Your task to perform on an android device: Clear the cart on bestbuy.com. Search for apple airpods pro on bestbuy.com, select the first entry, add it to the cart, then select checkout. Image 0: 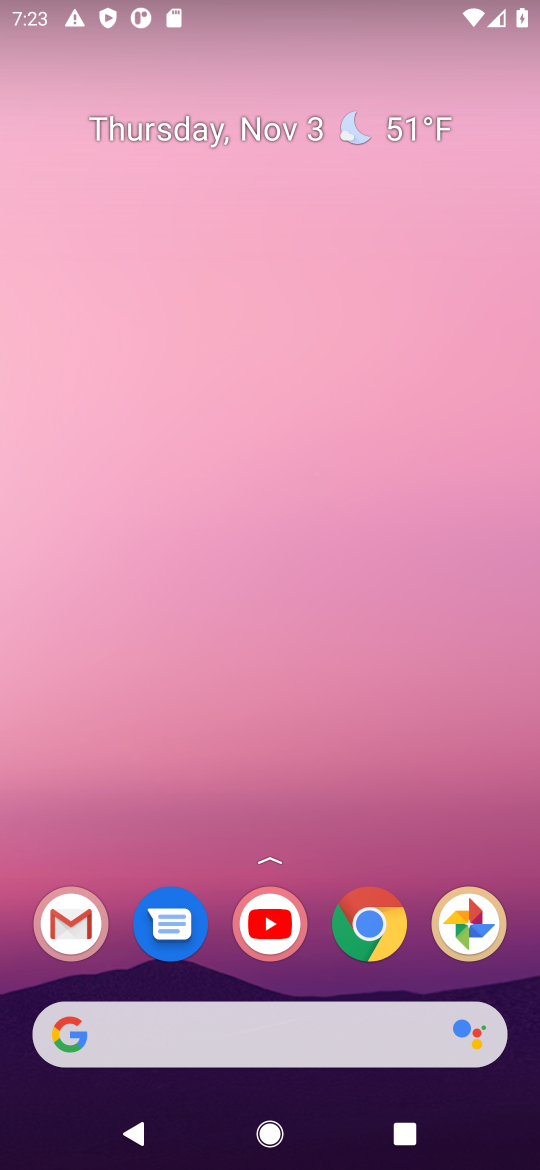
Step 0: drag from (289, 1011) to (293, 273)
Your task to perform on an android device: Clear the cart on bestbuy.com. Search for apple airpods pro on bestbuy.com, select the first entry, add it to the cart, then select checkout. Image 1: 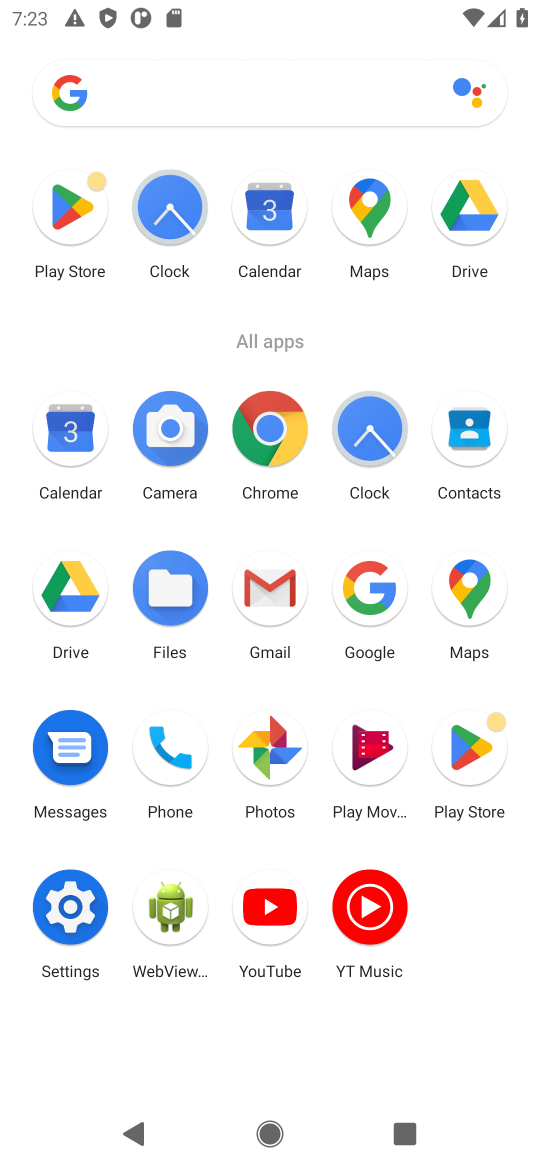
Step 1: click (388, 583)
Your task to perform on an android device: Clear the cart on bestbuy.com. Search for apple airpods pro on bestbuy.com, select the first entry, add it to the cart, then select checkout. Image 2: 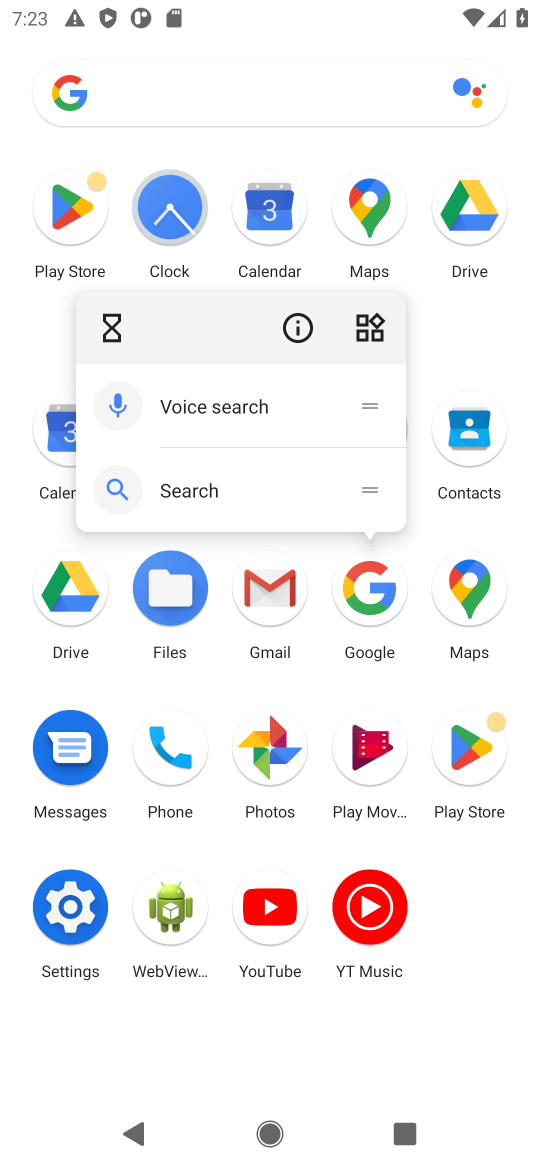
Step 2: click (367, 586)
Your task to perform on an android device: Clear the cart on bestbuy.com. Search for apple airpods pro on bestbuy.com, select the first entry, add it to the cart, then select checkout. Image 3: 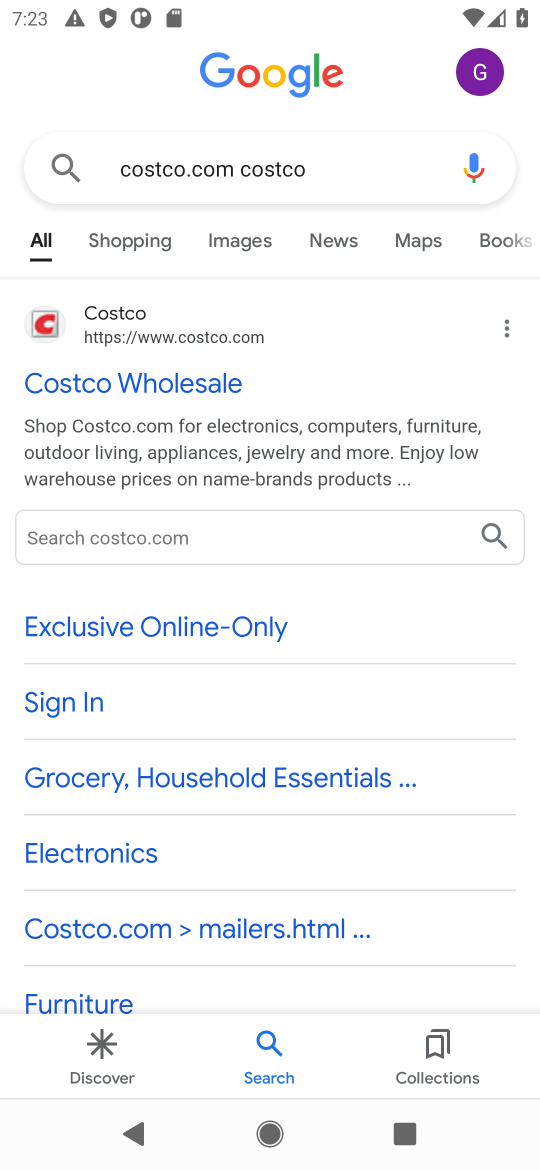
Step 3: click (282, 154)
Your task to perform on an android device: Clear the cart on bestbuy.com. Search for apple airpods pro on bestbuy.com, select the first entry, add it to the cart, then select checkout. Image 4: 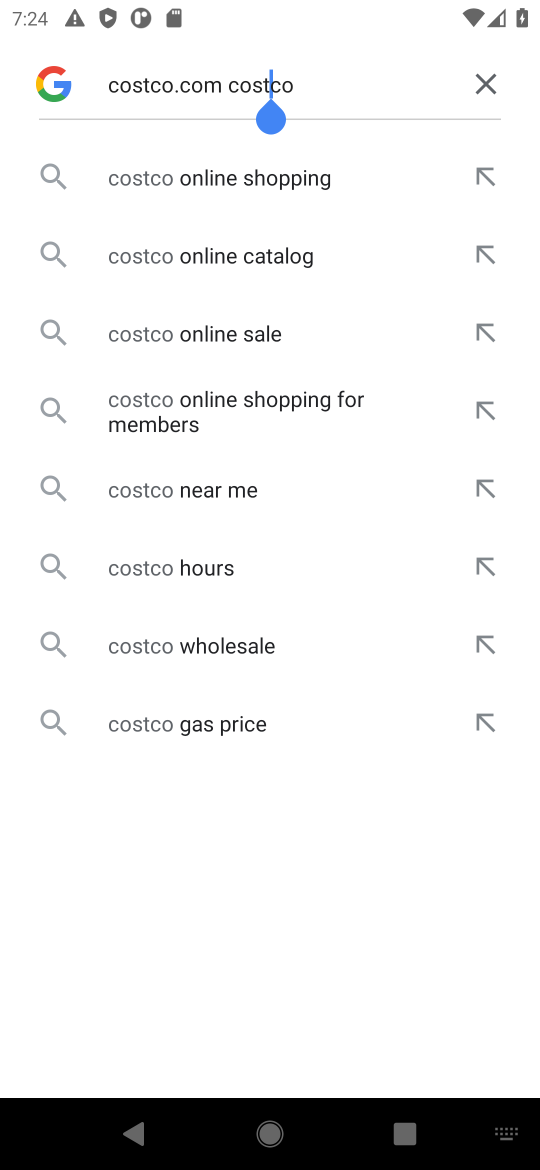
Step 4: click (499, 75)
Your task to perform on an android device: Clear the cart on bestbuy.com. Search for apple airpods pro on bestbuy.com, select the first entry, add it to the cart, then select checkout. Image 5: 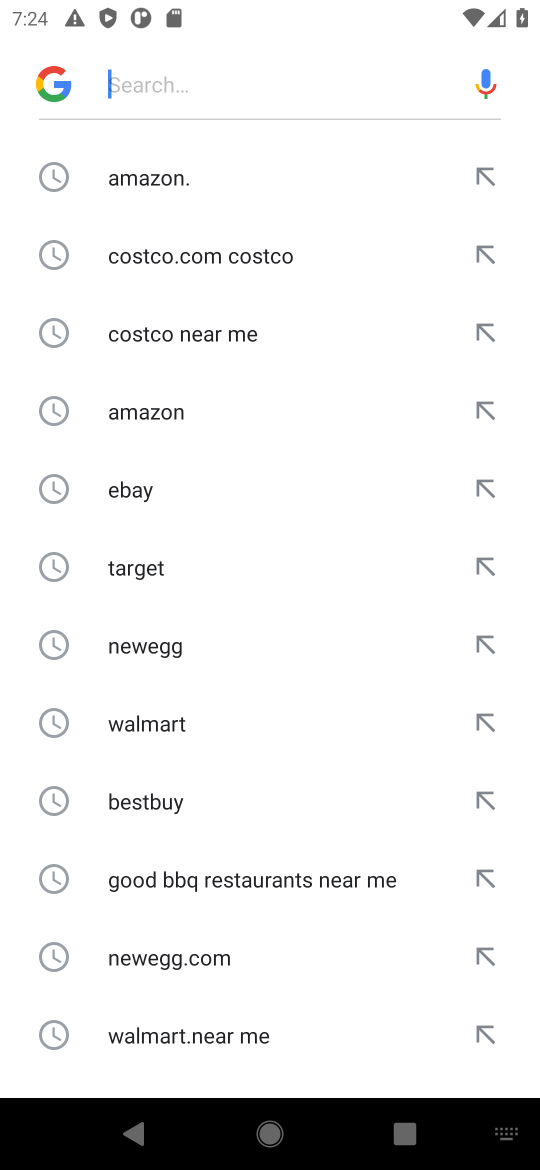
Step 5: click (240, 95)
Your task to perform on an android device: Clear the cart on bestbuy.com. Search for apple airpods pro on bestbuy.com, select the first entry, add it to the cart, then select checkout. Image 6: 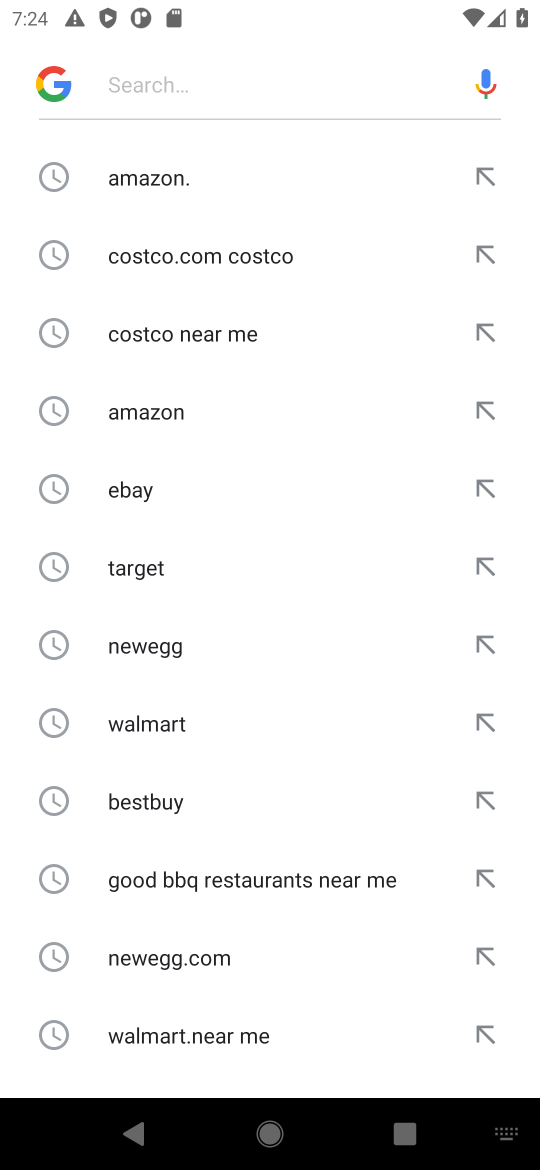
Step 6: click (174, 84)
Your task to perform on an android device: Clear the cart on bestbuy.com. Search for apple airpods pro on bestbuy.com, select the first entry, add it to the cart, then select checkout. Image 7: 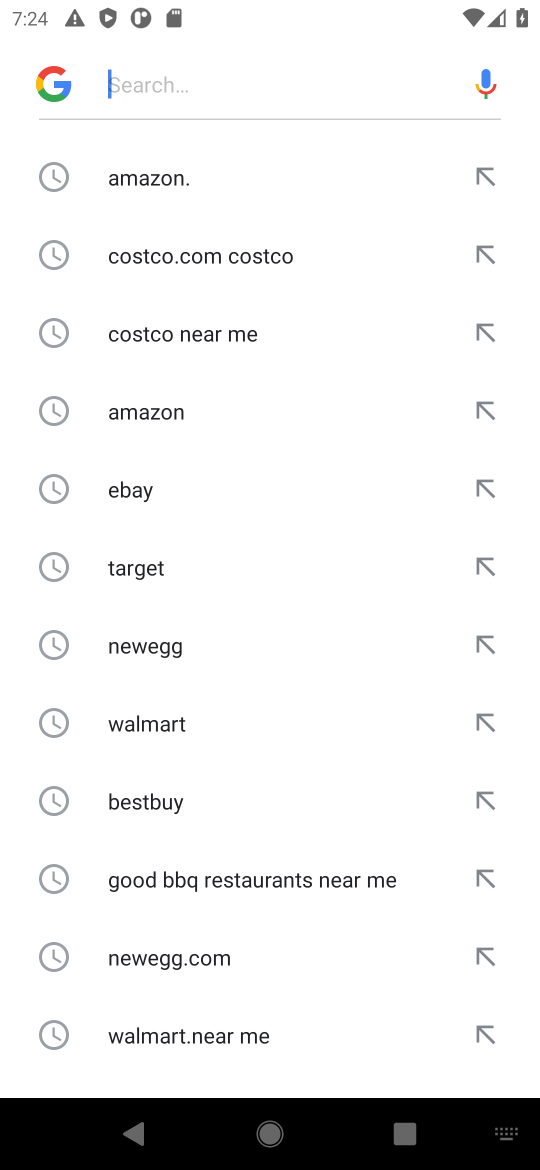
Step 7: type "bestbuy "
Your task to perform on an android device: Clear the cart on bestbuy.com. Search for apple airpods pro on bestbuy.com, select the first entry, add it to the cart, then select checkout. Image 8: 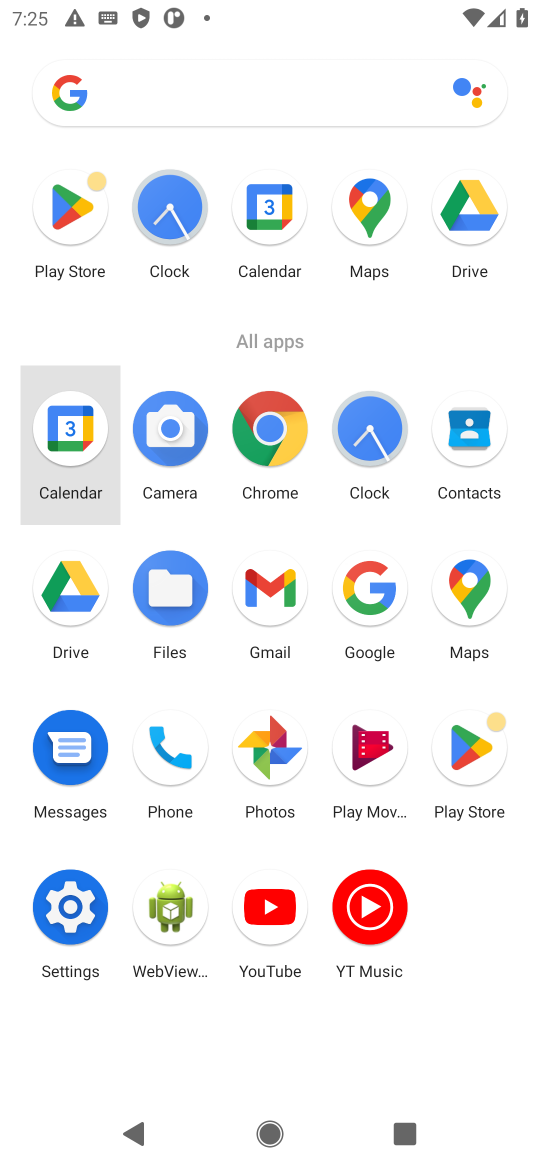
Step 8: click (374, 586)
Your task to perform on an android device: Clear the cart on bestbuy.com. Search for apple airpods pro on bestbuy.com, select the first entry, add it to the cart, then select checkout. Image 9: 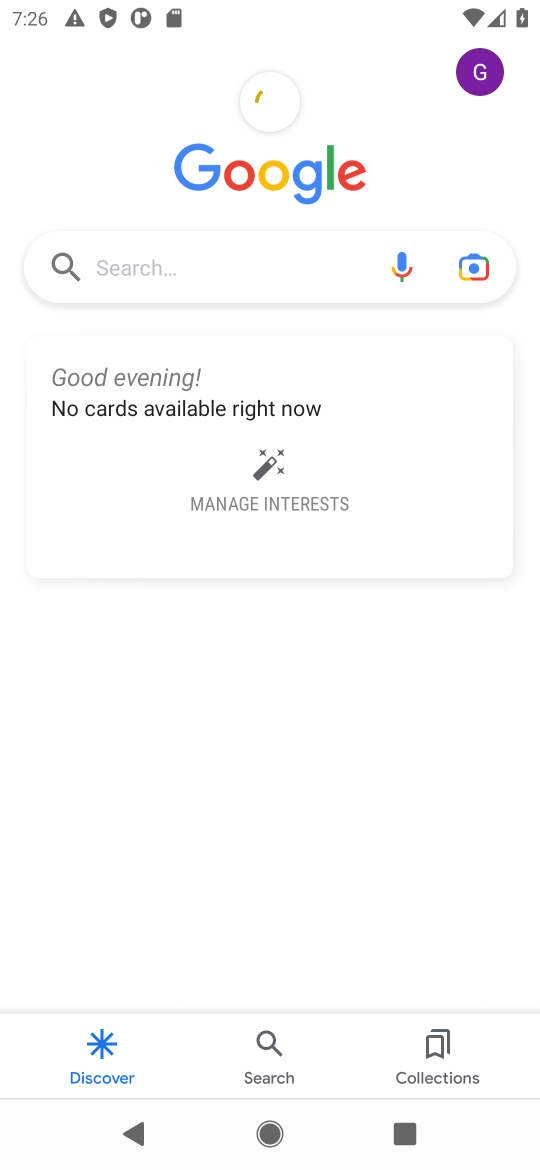
Step 9: click (226, 263)
Your task to perform on an android device: Clear the cart on bestbuy.com. Search for apple airpods pro on bestbuy.com, select the first entry, add it to the cart, then select checkout. Image 10: 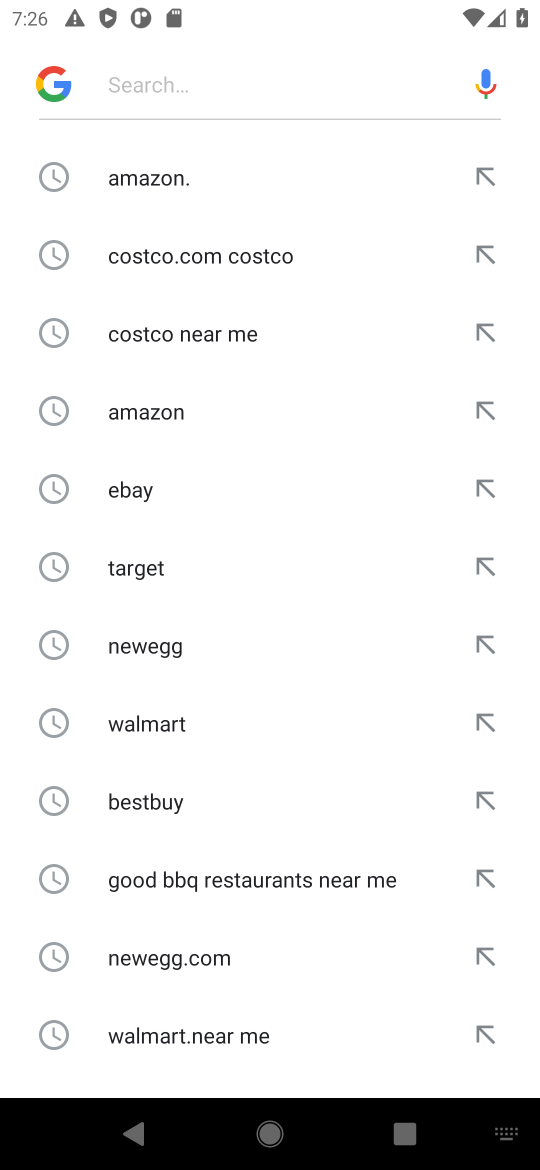
Step 10: type "bestbuy "
Your task to perform on an android device: Clear the cart on bestbuy.com. Search for apple airpods pro on bestbuy.com, select the first entry, add it to the cart, then select checkout. Image 11: 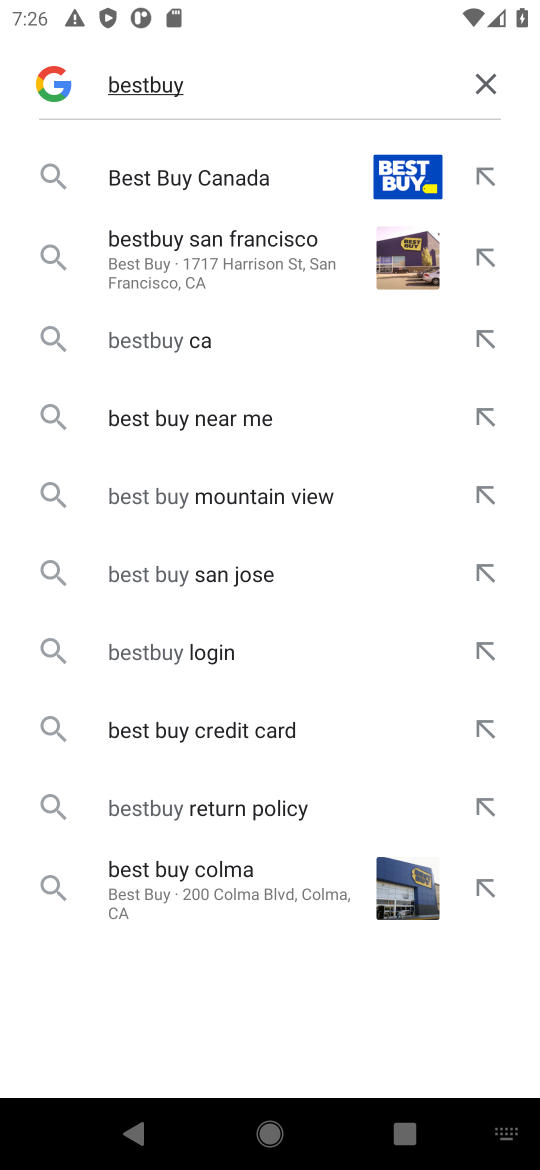
Step 11: click (140, 160)
Your task to perform on an android device: Clear the cart on bestbuy.com. Search for apple airpods pro on bestbuy.com, select the first entry, add it to the cart, then select checkout. Image 12: 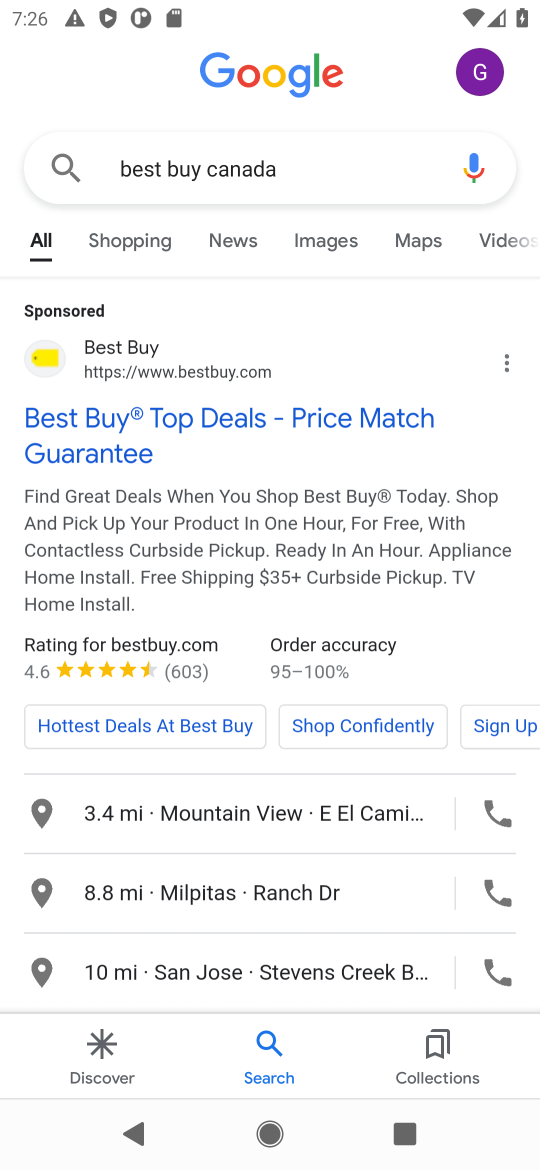
Step 12: click (52, 341)
Your task to perform on an android device: Clear the cart on bestbuy.com. Search for apple airpods pro on bestbuy.com, select the first entry, add it to the cart, then select checkout. Image 13: 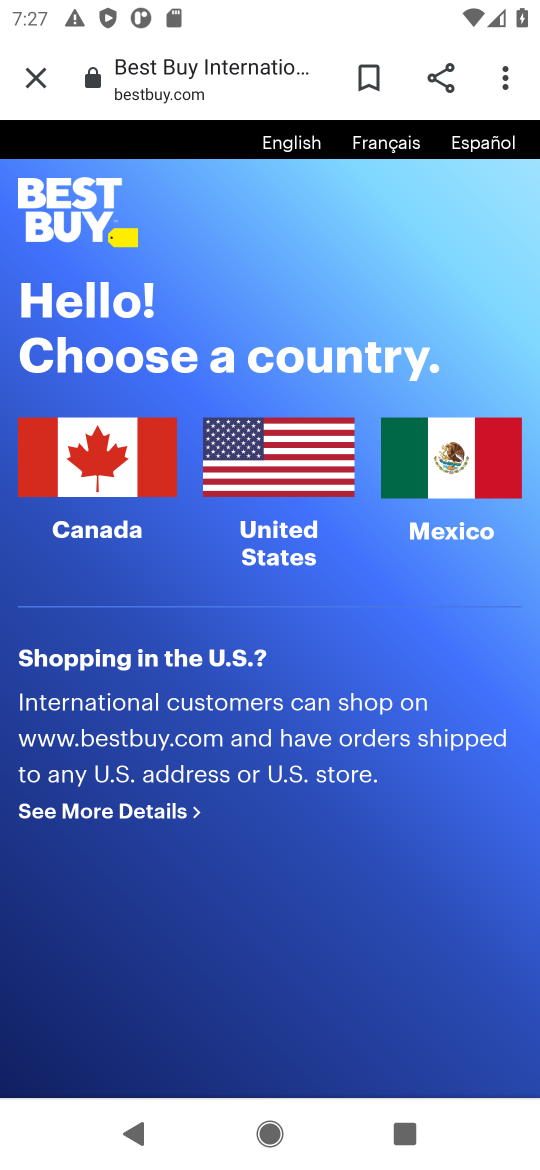
Step 13: click (292, 453)
Your task to perform on an android device: Clear the cart on bestbuy.com. Search for apple airpods pro on bestbuy.com, select the first entry, add it to the cart, then select checkout. Image 14: 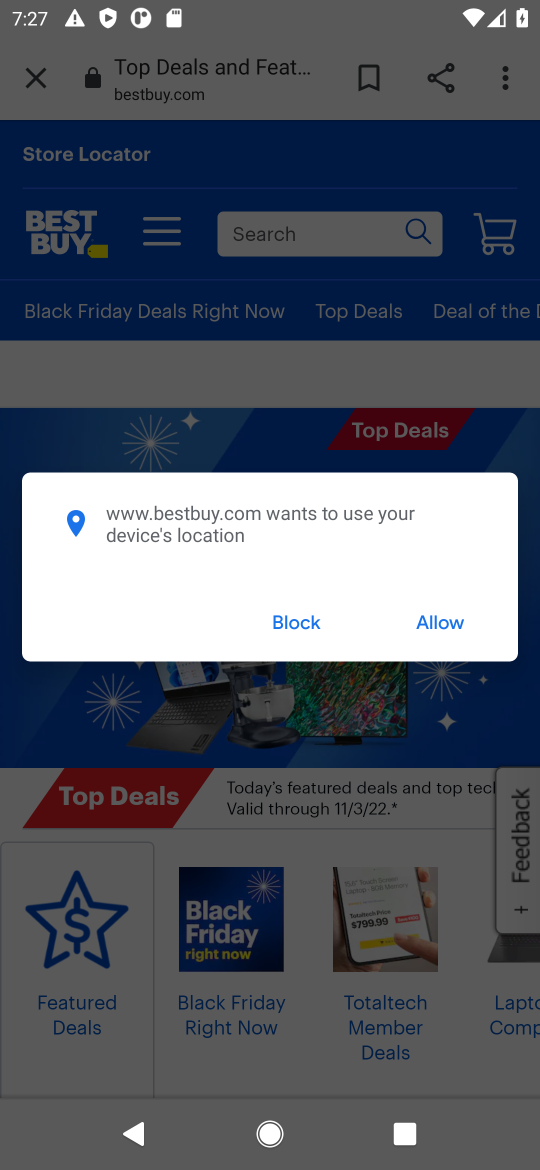
Step 14: click (443, 611)
Your task to perform on an android device: Clear the cart on bestbuy.com. Search for apple airpods pro on bestbuy.com, select the first entry, add it to the cart, then select checkout. Image 15: 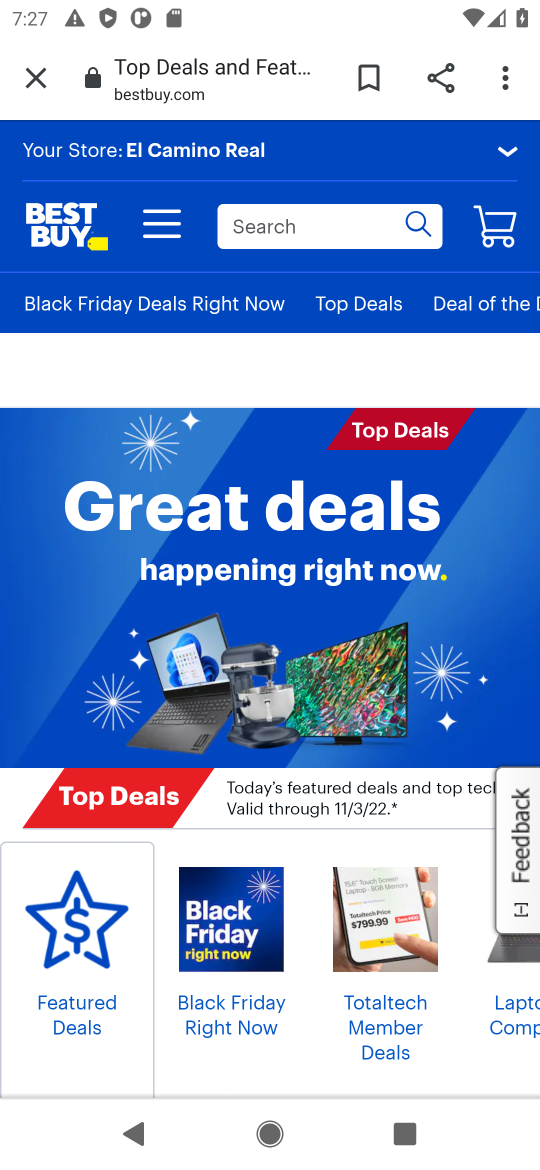
Step 15: click (348, 225)
Your task to perform on an android device: Clear the cart on bestbuy.com. Search for apple airpods pro on bestbuy.com, select the first entry, add it to the cart, then select checkout. Image 16: 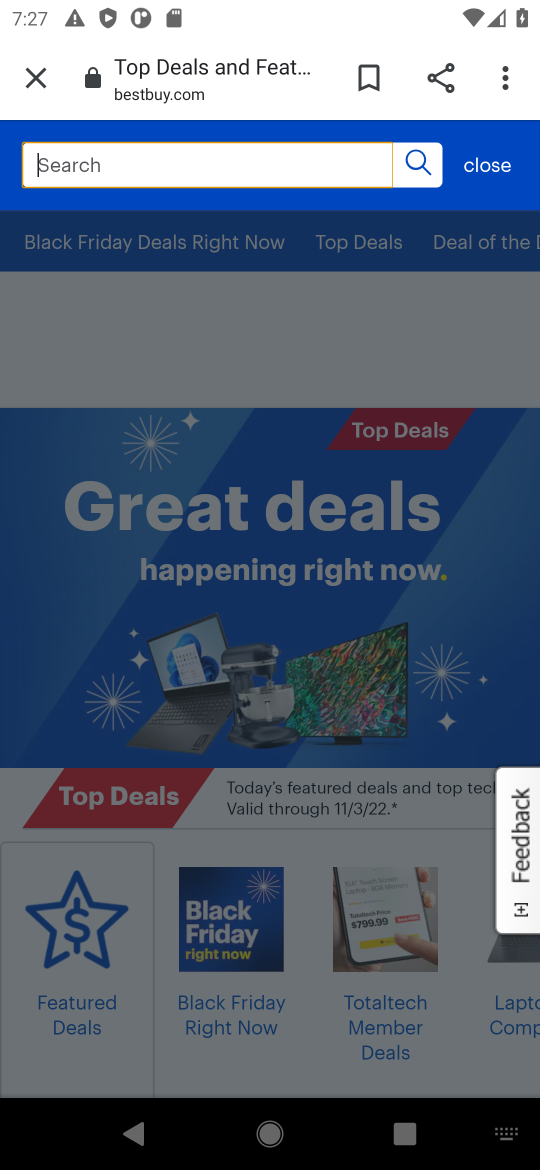
Step 16: type "airpods "
Your task to perform on an android device: Clear the cart on bestbuy.com. Search for apple airpods pro on bestbuy.com, select the first entry, add it to the cart, then select checkout. Image 17: 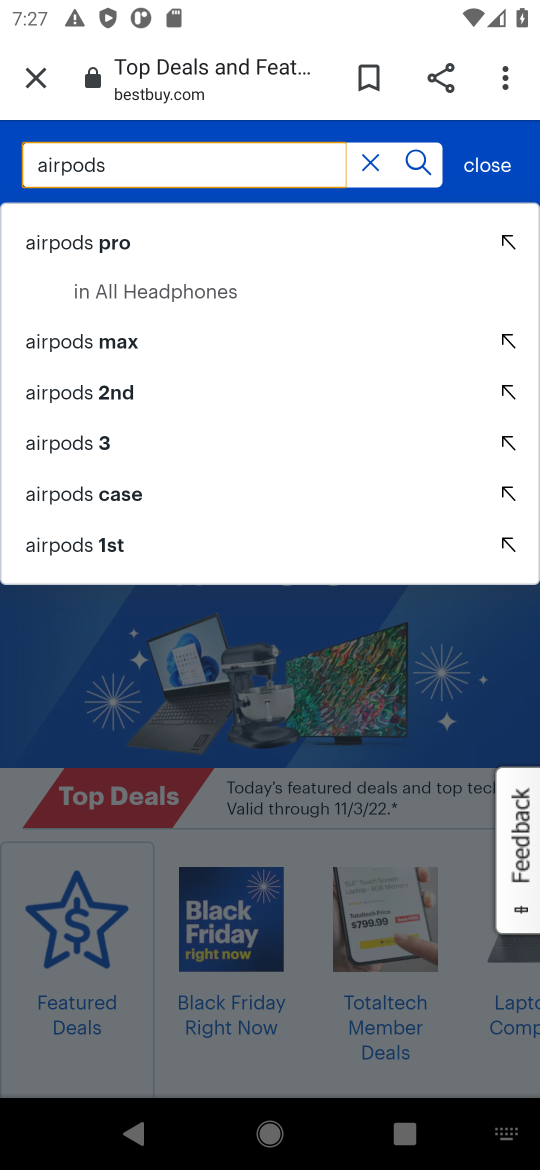
Step 17: click (122, 240)
Your task to perform on an android device: Clear the cart on bestbuy.com. Search for apple airpods pro on bestbuy.com, select the first entry, add it to the cart, then select checkout. Image 18: 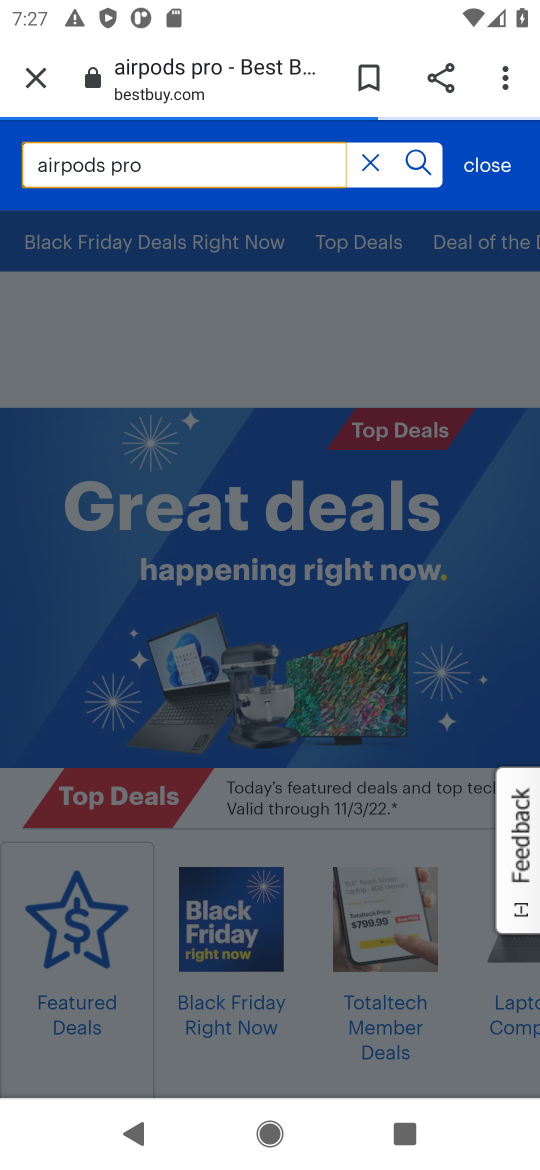
Step 18: click (421, 163)
Your task to perform on an android device: Clear the cart on bestbuy.com. Search for apple airpods pro on bestbuy.com, select the first entry, add it to the cart, then select checkout. Image 19: 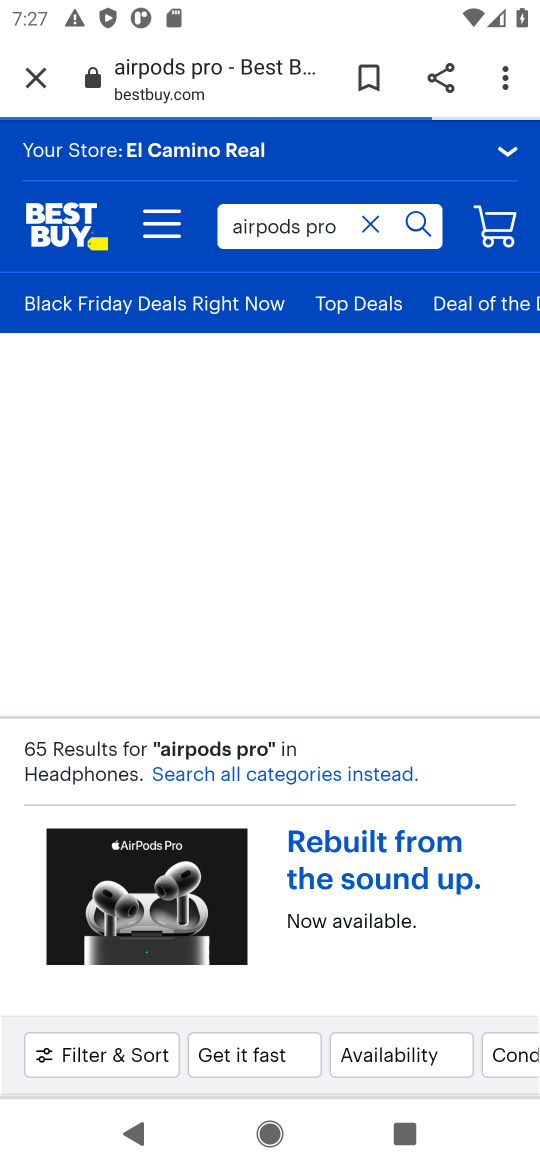
Step 19: click (408, 219)
Your task to perform on an android device: Clear the cart on bestbuy.com. Search for apple airpods pro on bestbuy.com, select the first entry, add it to the cart, then select checkout. Image 20: 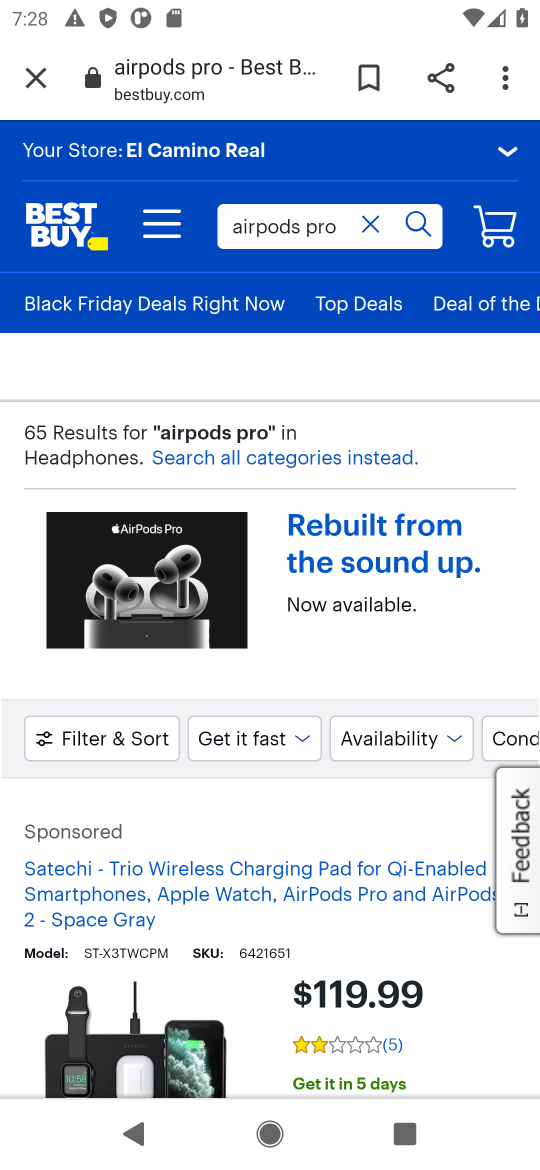
Step 20: drag from (184, 997) to (367, 262)
Your task to perform on an android device: Clear the cart on bestbuy.com. Search for apple airpods pro on bestbuy.com, select the first entry, add it to the cart, then select checkout. Image 21: 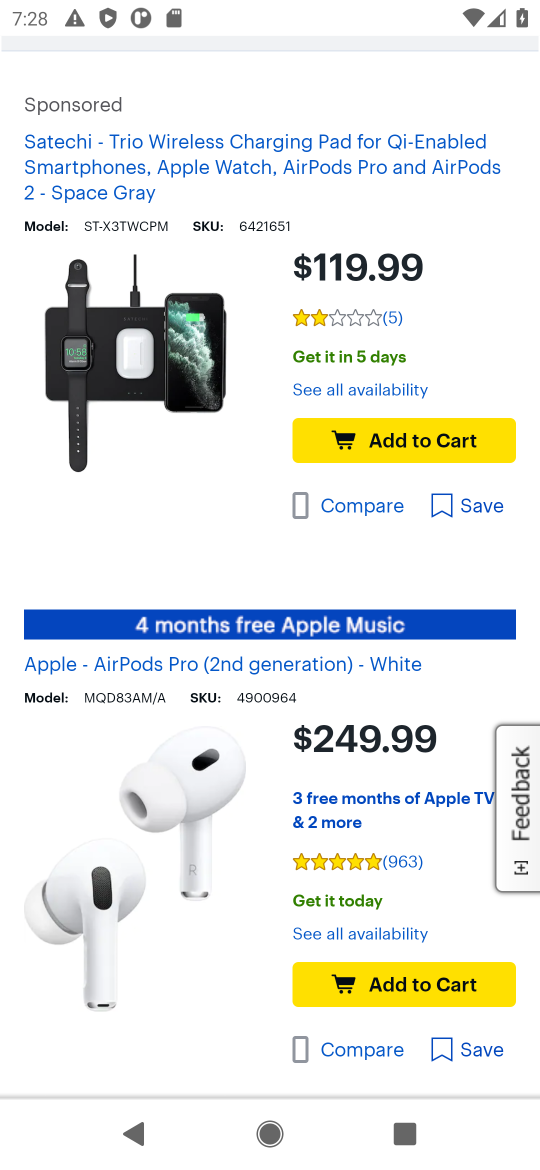
Step 21: click (373, 983)
Your task to perform on an android device: Clear the cart on bestbuy.com. Search for apple airpods pro on bestbuy.com, select the first entry, add it to the cart, then select checkout. Image 22: 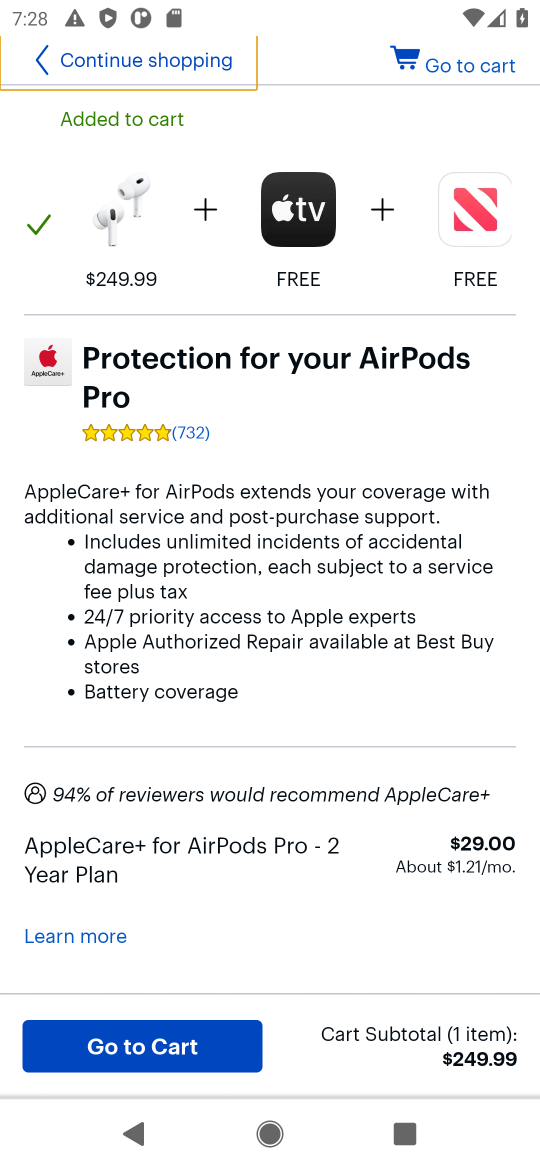
Step 22: task complete